Your task to perform on an android device: change the clock display to digital Image 0: 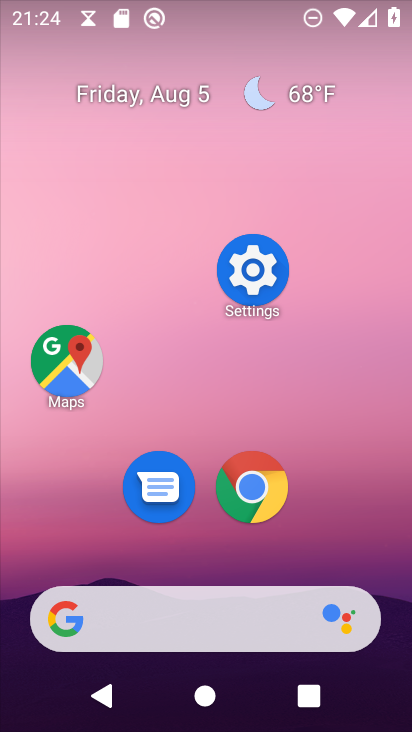
Step 0: drag from (213, 628) to (348, 48)
Your task to perform on an android device: change the clock display to digital Image 1: 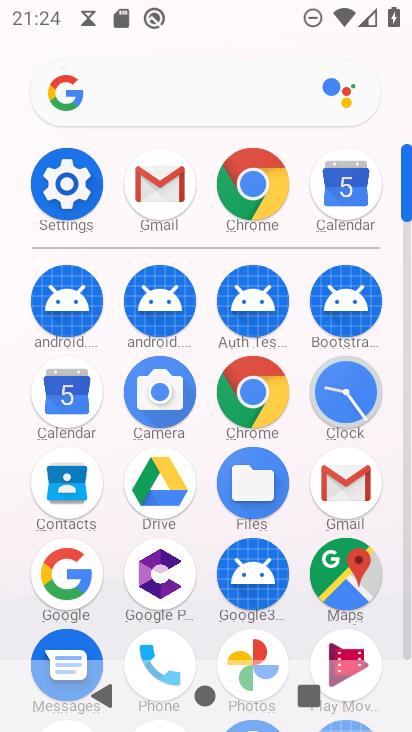
Step 1: click (351, 391)
Your task to perform on an android device: change the clock display to digital Image 2: 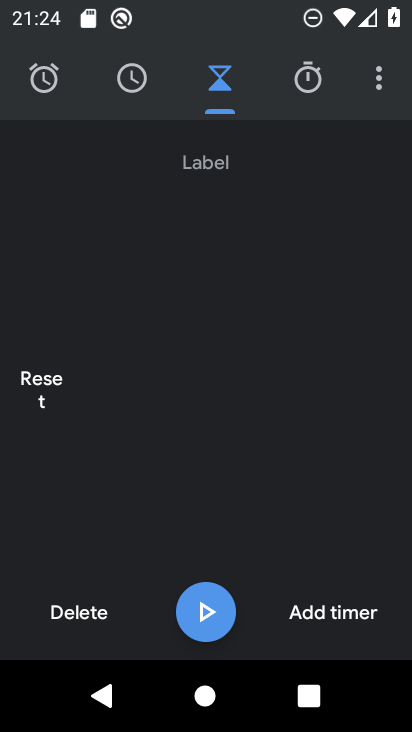
Step 2: click (377, 84)
Your task to perform on an android device: change the clock display to digital Image 3: 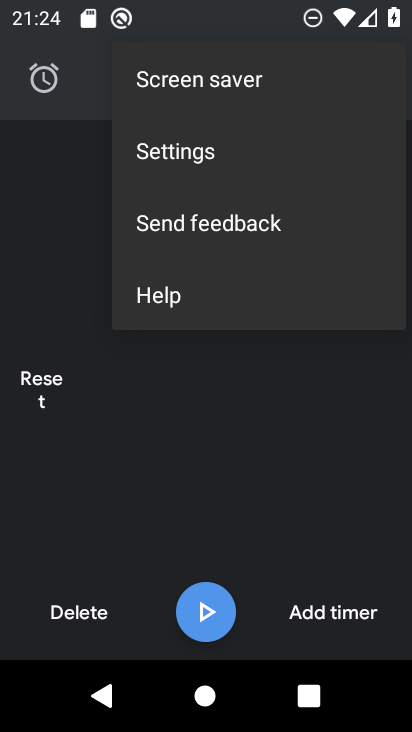
Step 3: click (220, 158)
Your task to perform on an android device: change the clock display to digital Image 4: 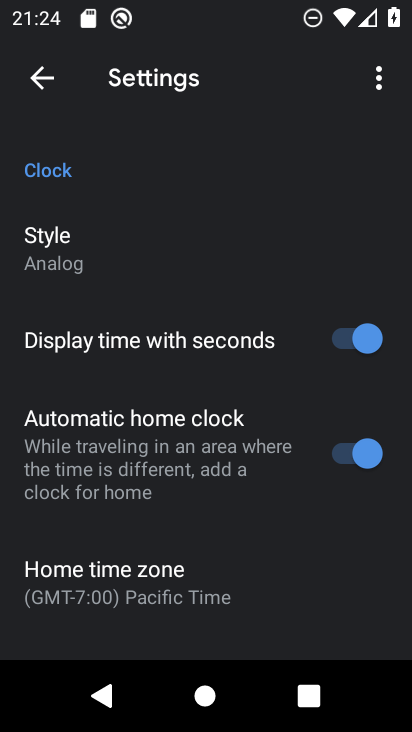
Step 4: click (58, 267)
Your task to perform on an android device: change the clock display to digital Image 5: 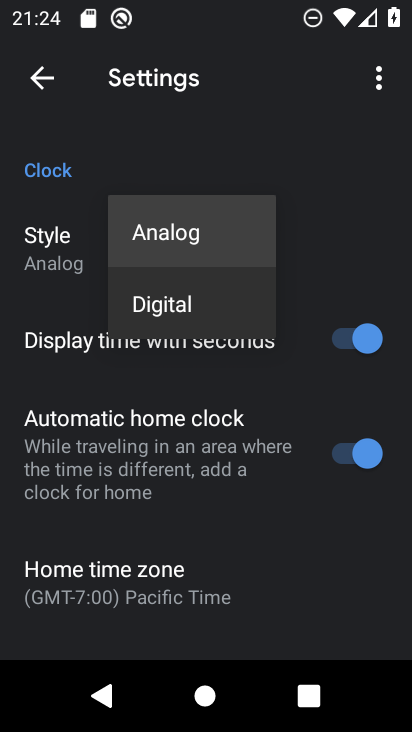
Step 5: click (143, 310)
Your task to perform on an android device: change the clock display to digital Image 6: 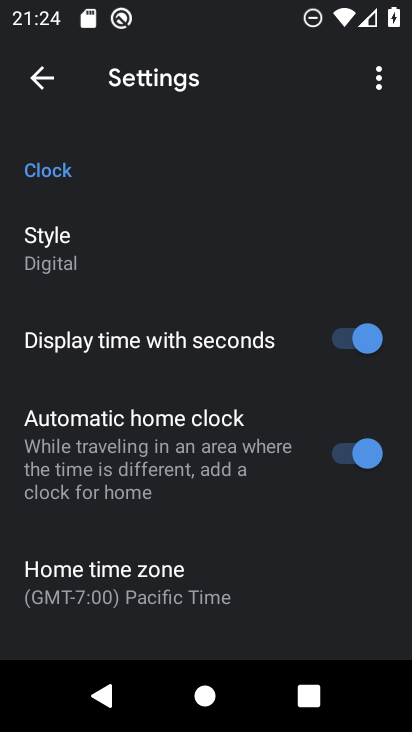
Step 6: task complete